Your task to perform on an android device: Turn on the flashlight Image 0: 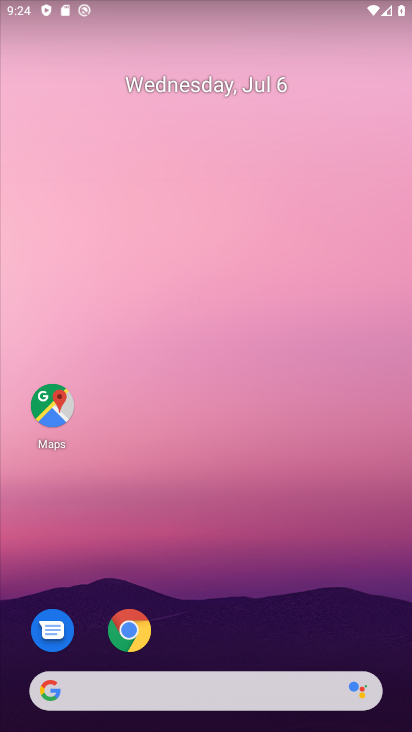
Step 0: drag from (280, 13) to (317, 582)
Your task to perform on an android device: Turn on the flashlight Image 1: 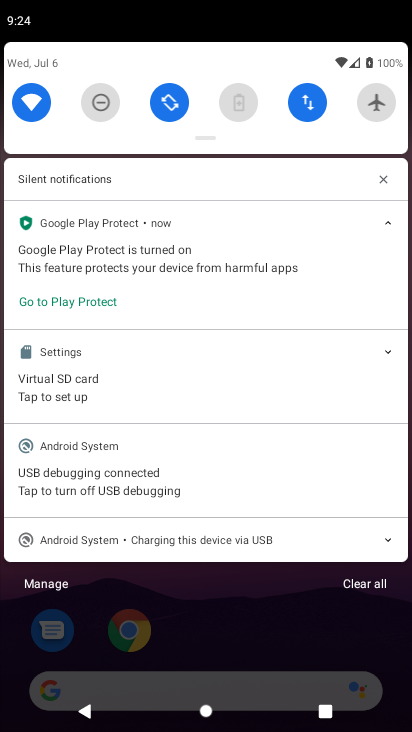
Step 1: task complete